Your task to perform on an android device: Go to Google maps Image 0: 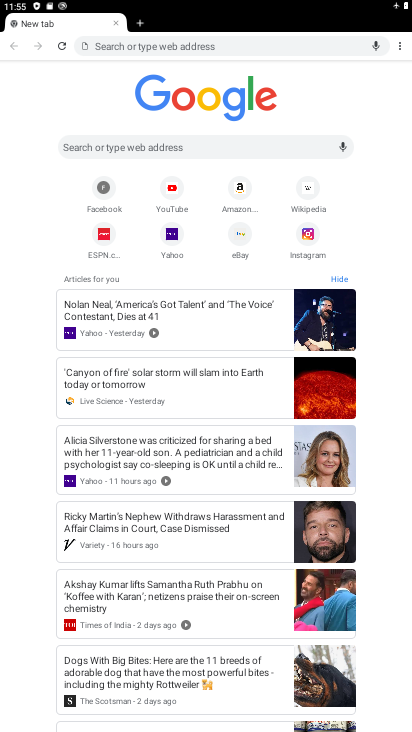
Step 0: press home button
Your task to perform on an android device: Go to Google maps Image 1: 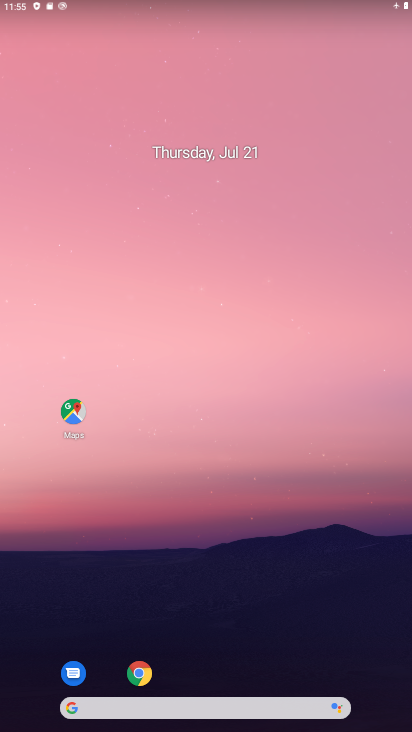
Step 1: drag from (193, 519) to (101, 0)
Your task to perform on an android device: Go to Google maps Image 2: 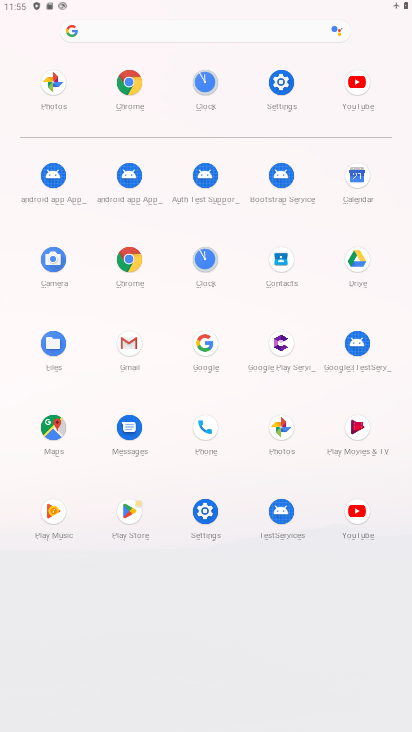
Step 2: click (43, 411)
Your task to perform on an android device: Go to Google maps Image 3: 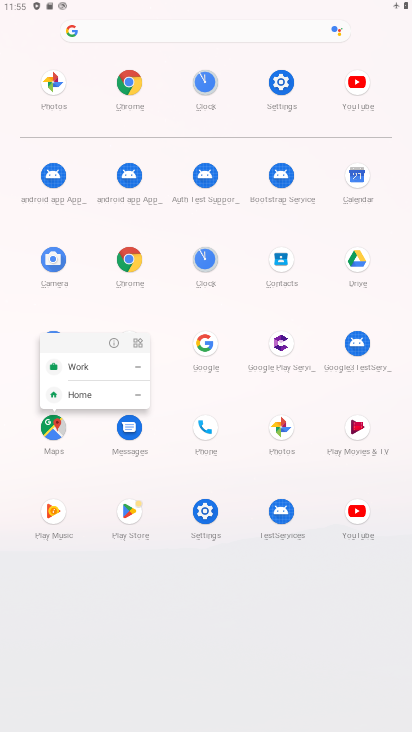
Step 3: click (120, 338)
Your task to perform on an android device: Go to Google maps Image 4: 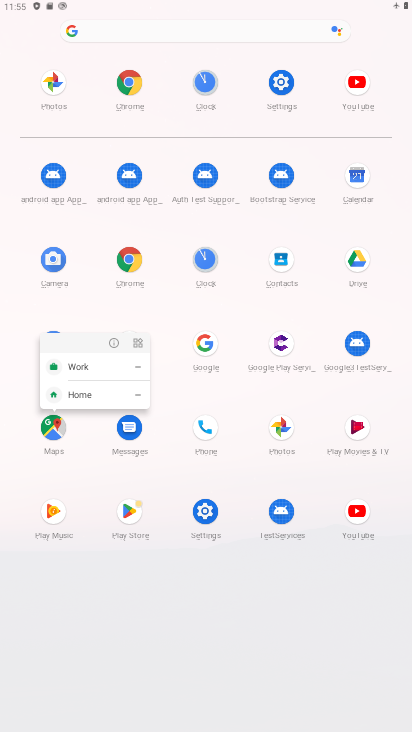
Step 4: click (120, 338)
Your task to perform on an android device: Go to Google maps Image 5: 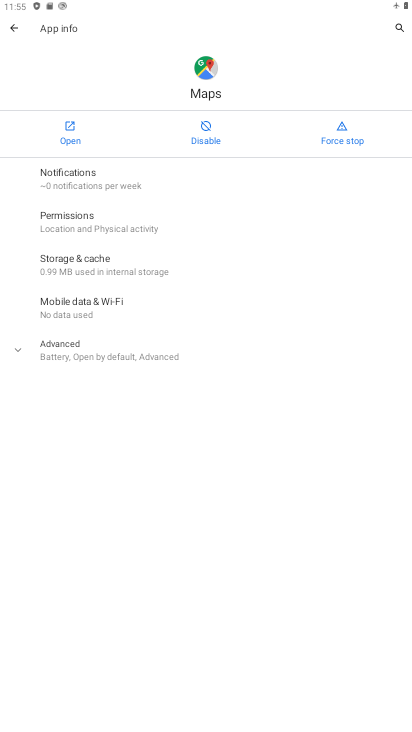
Step 5: click (66, 136)
Your task to perform on an android device: Go to Google maps Image 6: 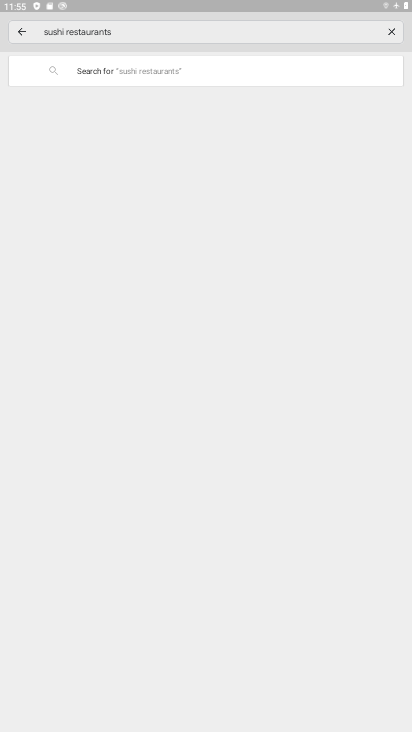
Step 6: drag from (199, 557) to (223, 207)
Your task to perform on an android device: Go to Google maps Image 7: 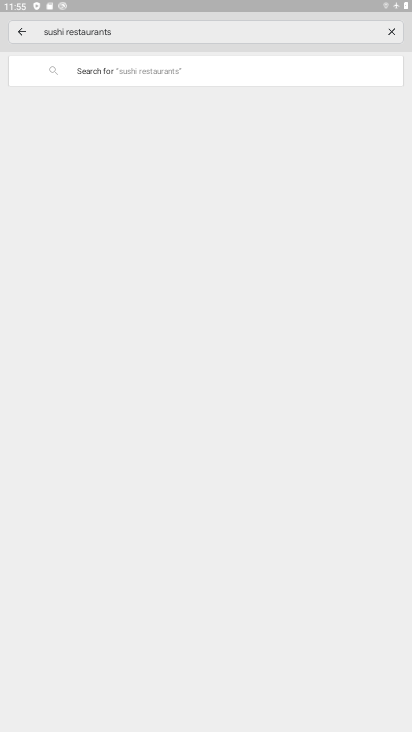
Step 7: click (13, 36)
Your task to perform on an android device: Go to Google maps Image 8: 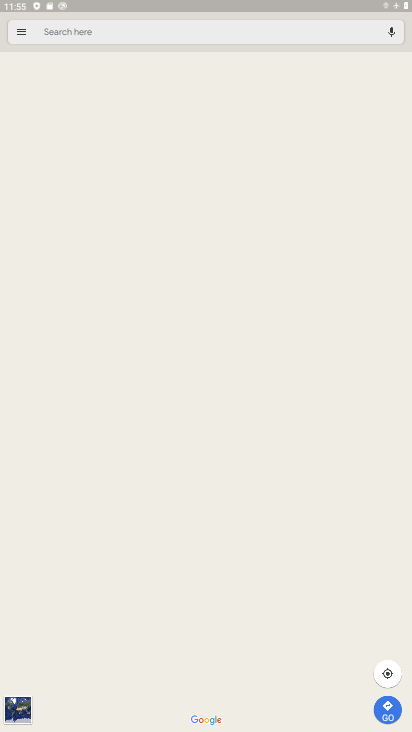
Step 8: task complete